Your task to perform on an android device: Turn on the flashlight Image 0: 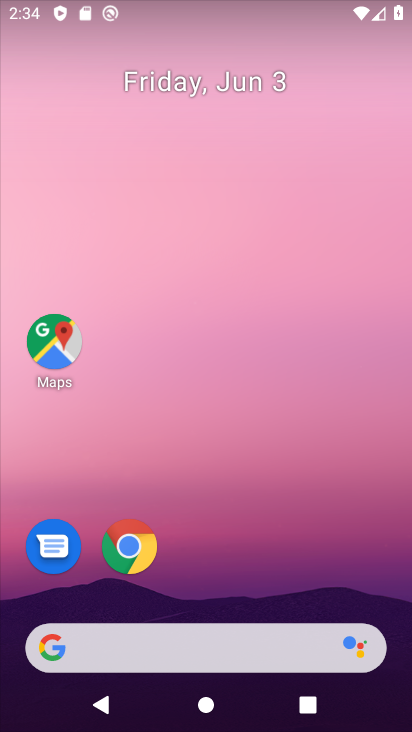
Step 0: drag from (255, 579) to (296, 1)
Your task to perform on an android device: Turn on the flashlight Image 1: 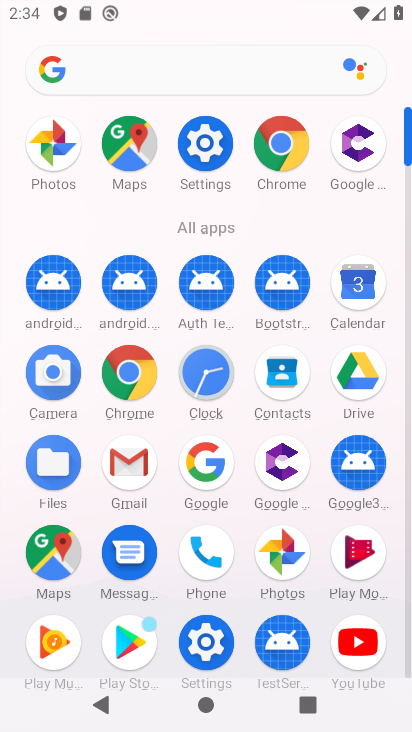
Step 1: click (199, 147)
Your task to perform on an android device: Turn on the flashlight Image 2: 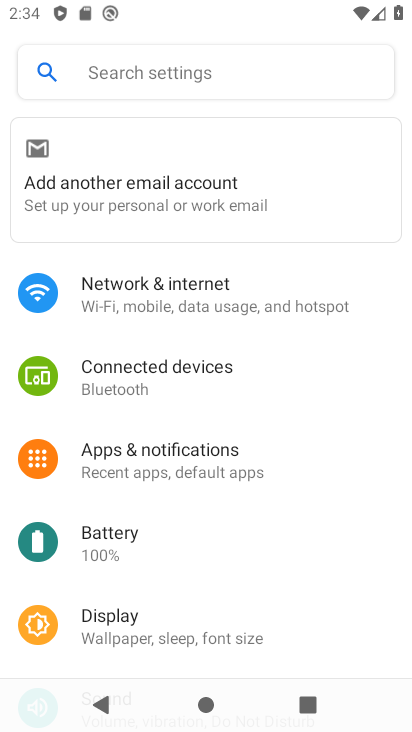
Step 2: task complete